Your task to perform on an android device: Open network settings Image 0: 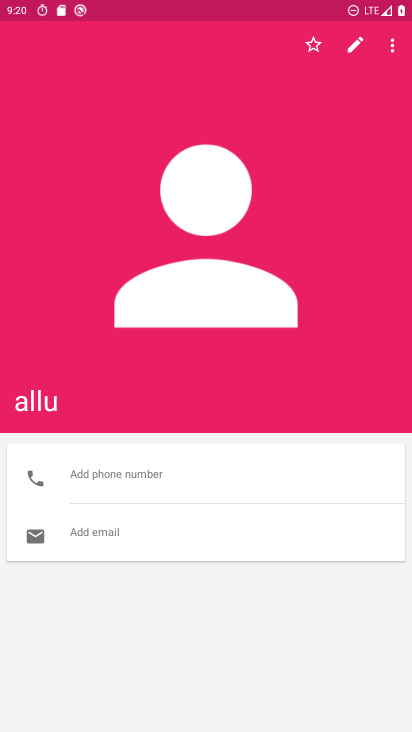
Step 0: press home button
Your task to perform on an android device: Open network settings Image 1: 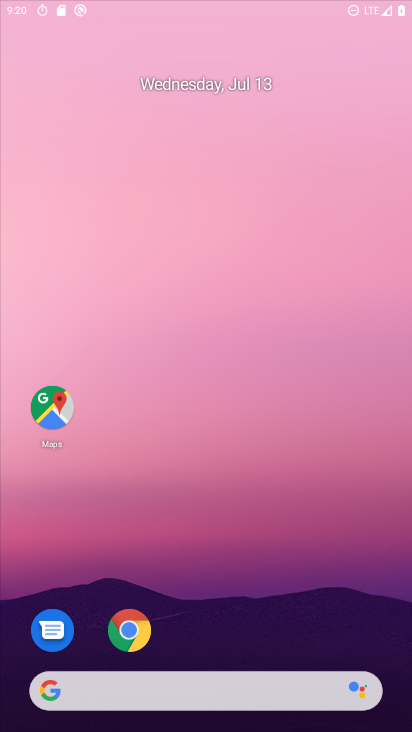
Step 1: drag from (387, 674) to (262, 34)
Your task to perform on an android device: Open network settings Image 2: 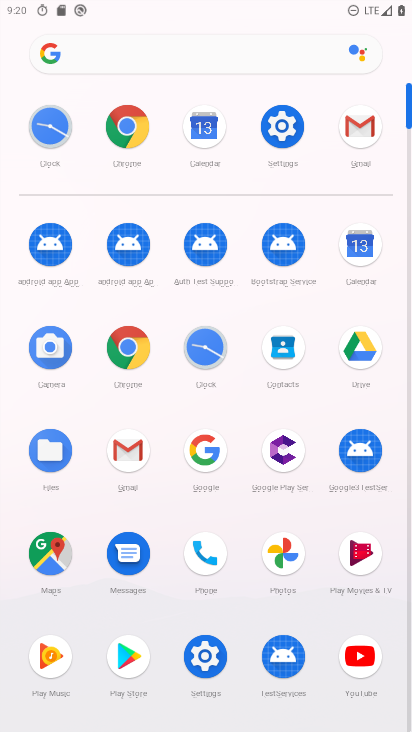
Step 2: click (185, 656)
Your task to perform on an android device: Open network settings Image 3: 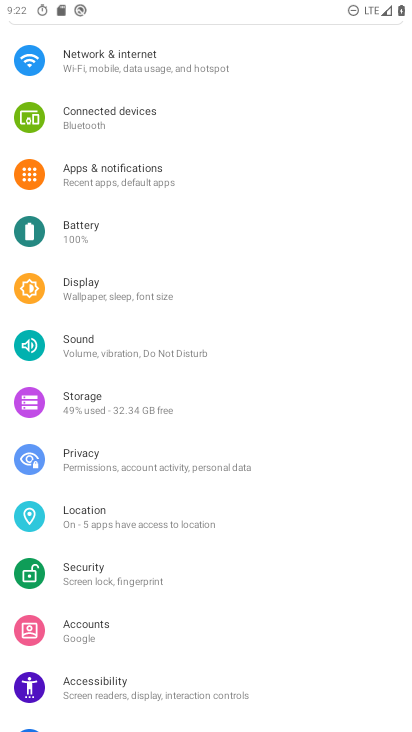
Step 3: click (158, 74)
Your task to perform on an android device: Open network settings Image 4: 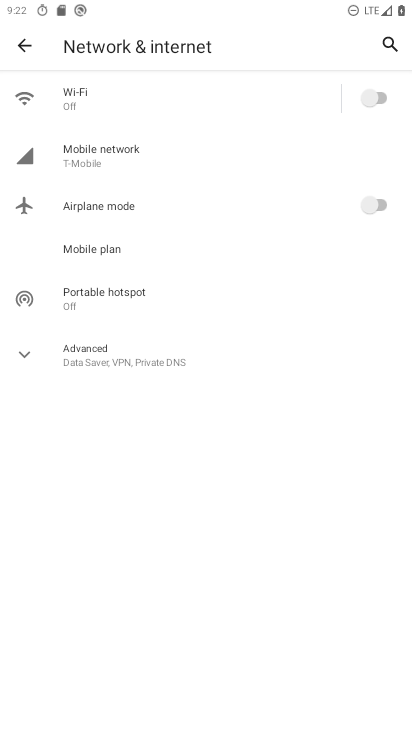
Step 4: task complete